Your task to perform on an android device: refresh tabs in the chrome app Image 0: 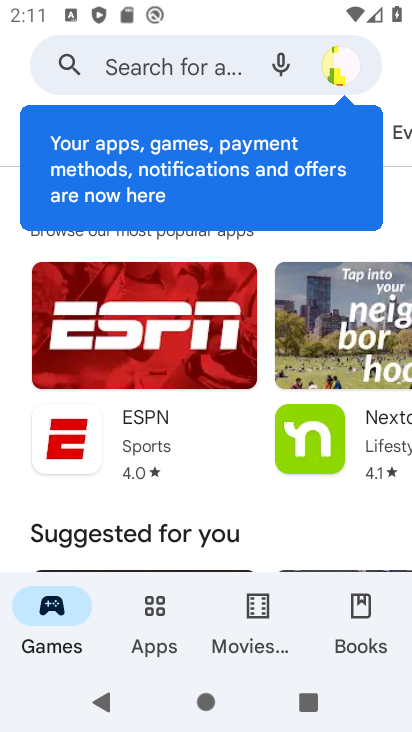
Step 0: press home button
Your task to perform on an android device: refresh tabs in the chrome app Image 1: 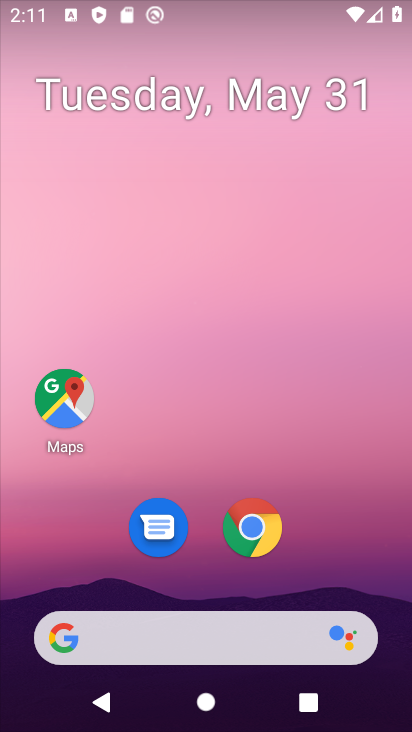
Step 1: click (251, 526)
Your task to perform on an android device: refresh tabs in the chrome app Image 2: 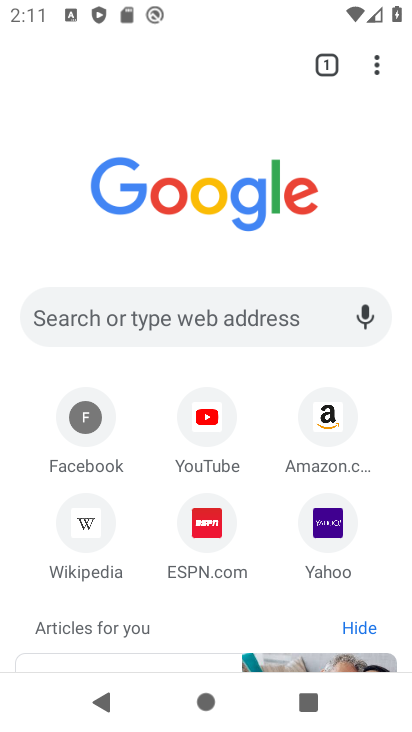
Step 2: click (375, 72)
Your task to perform on an android device: refresh tabs in the chrome app Image 3: 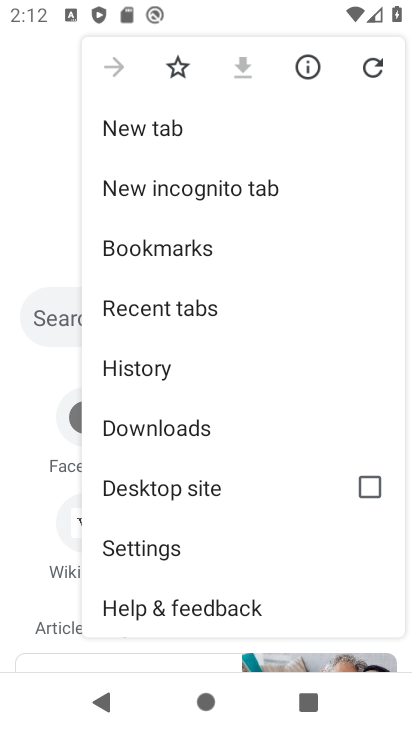
Step 3: click (372, 63)
Your task to perform on an android device: refresh tabs in the chrome app Image 4: 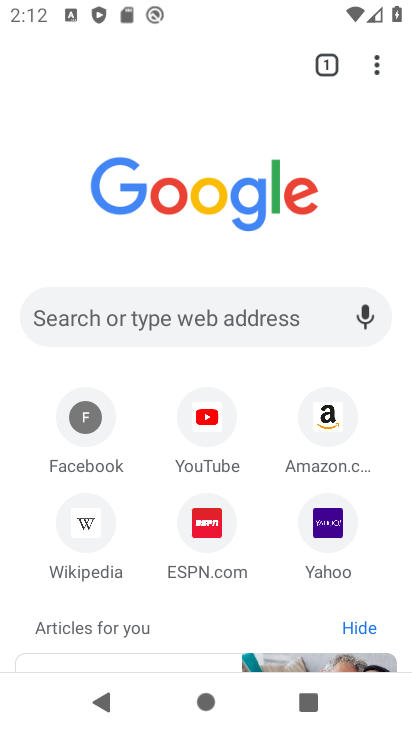
Step 4: task complete